Your task to perform on an android device: open app "DuckDuckGo Privacy Browser" (install if not already installed) Image 0: 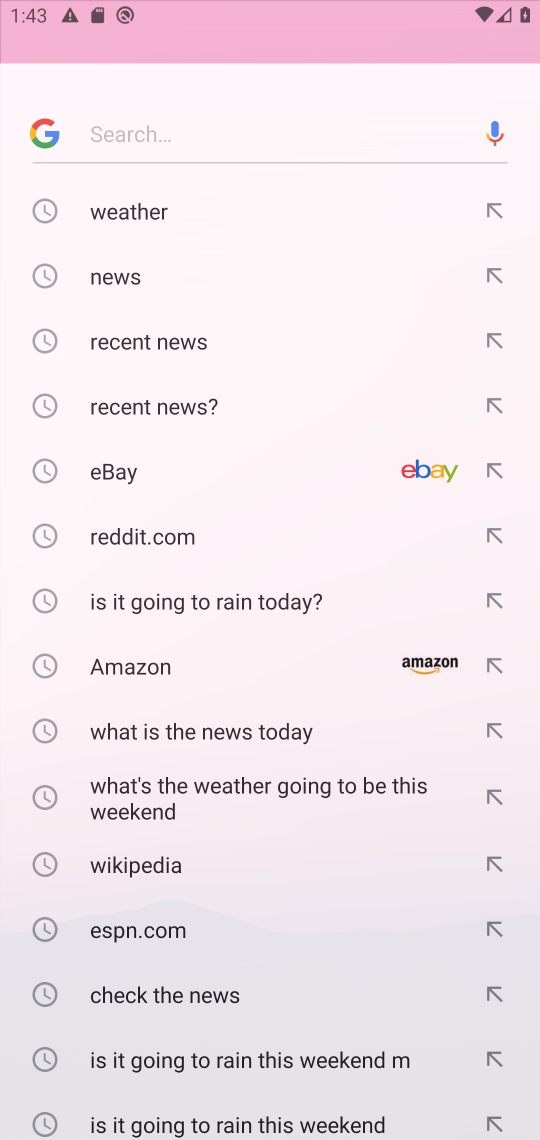
Step 0: press home button
Your task to perform on an android device: open app "DuckDuckGo Privacy Browser" (install if not already installed) Image 1: 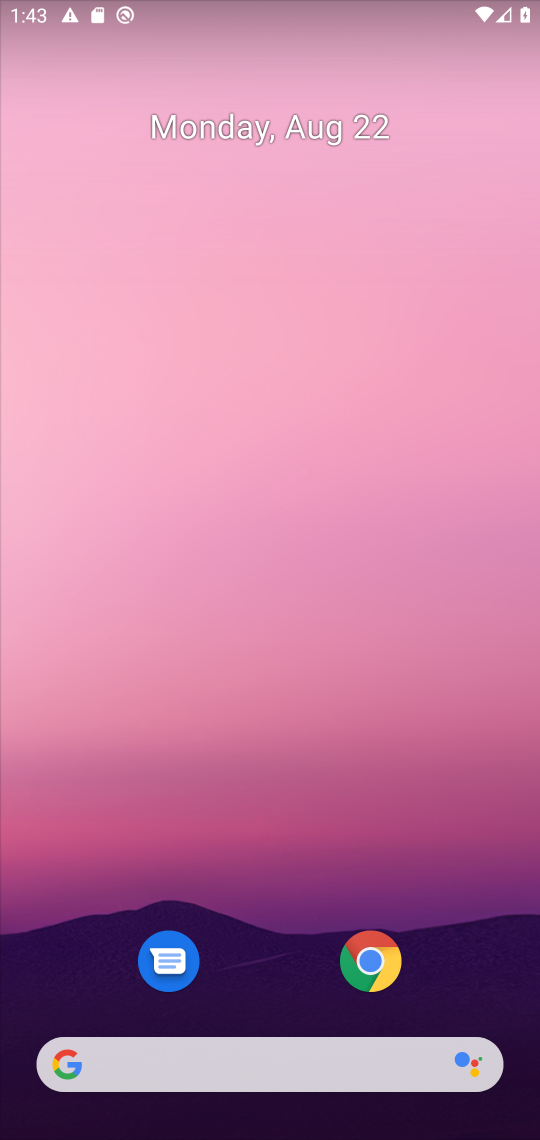
Step 1: drag from (467, 984) to (508, 136)
Your task to perform on an android device: open app "DuckDuckGo Privacy Browser" (install if not already installed) Image 2: 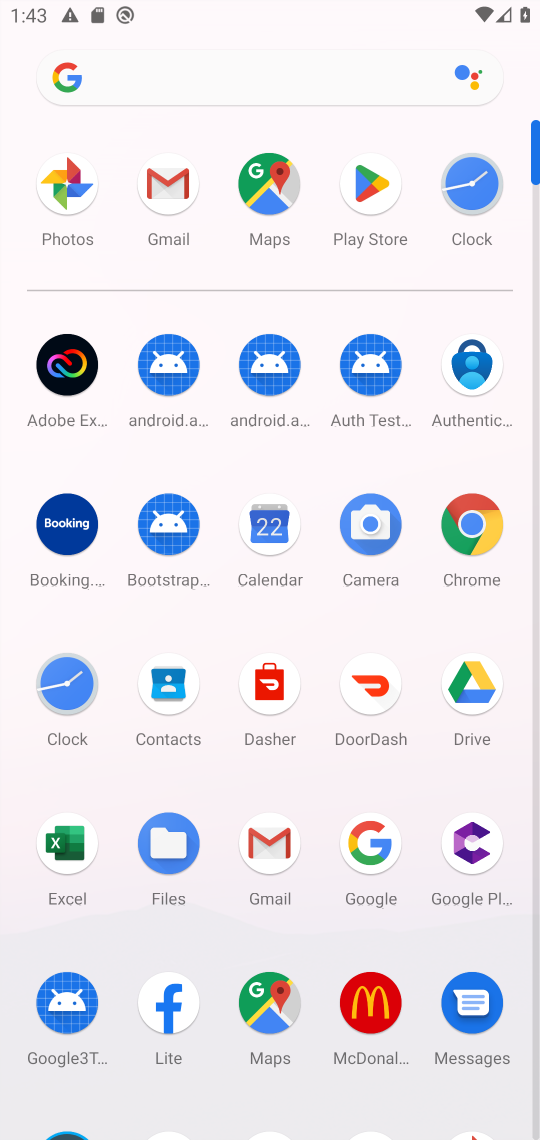
Step 2: click (358, 179)
Your task to perform on an android device: open app "DuckDuckGo Privacy Browser" (install if not already installed) Image 3: 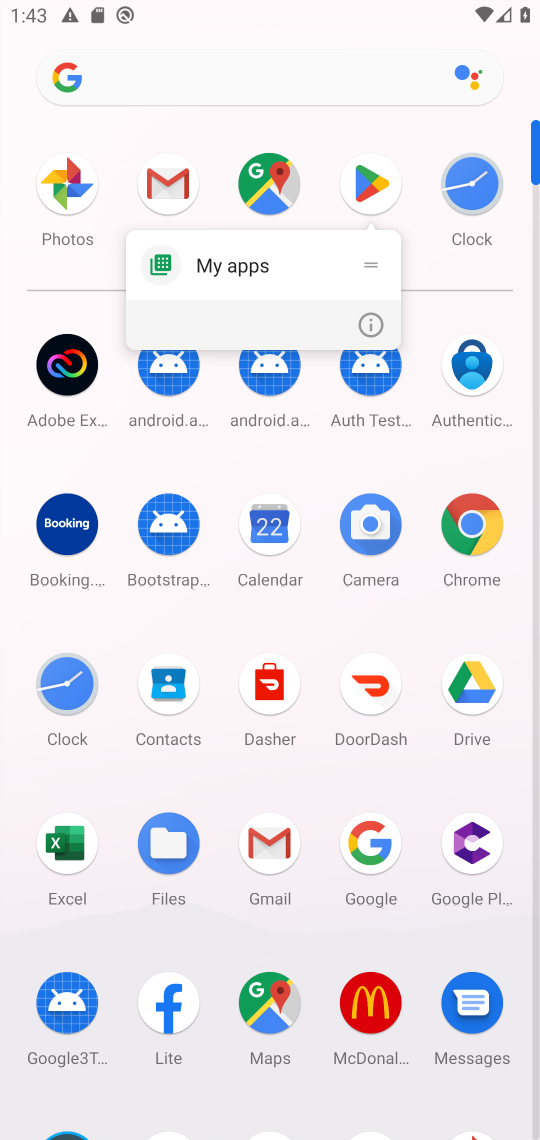
Step 3: click (379, 185)
Your task to perform on an android device: open app "DuckDuckGo Privacy Browser" (install if not already installed) Image 4: 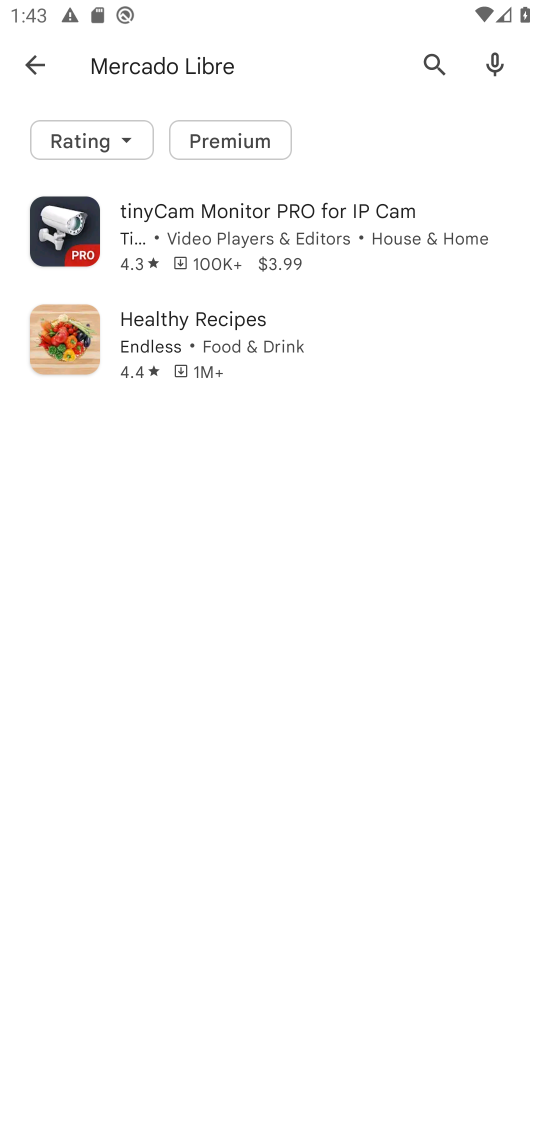
Step 4: press back button
Your task to perform on an android device: open app "DuckDuckGo Privacy Browser" (install if not already installed) Image 5: 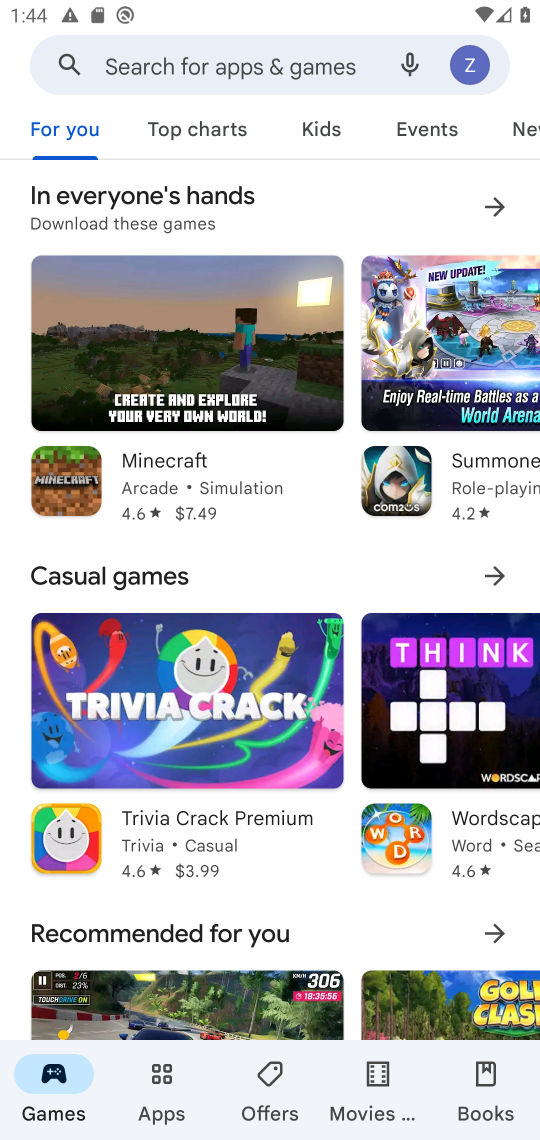
Step 5: click (195, 64)
Your task to perform on an android device: open app "DuckDuckGo Privacy Browser" (install if not already installed) Image 6: 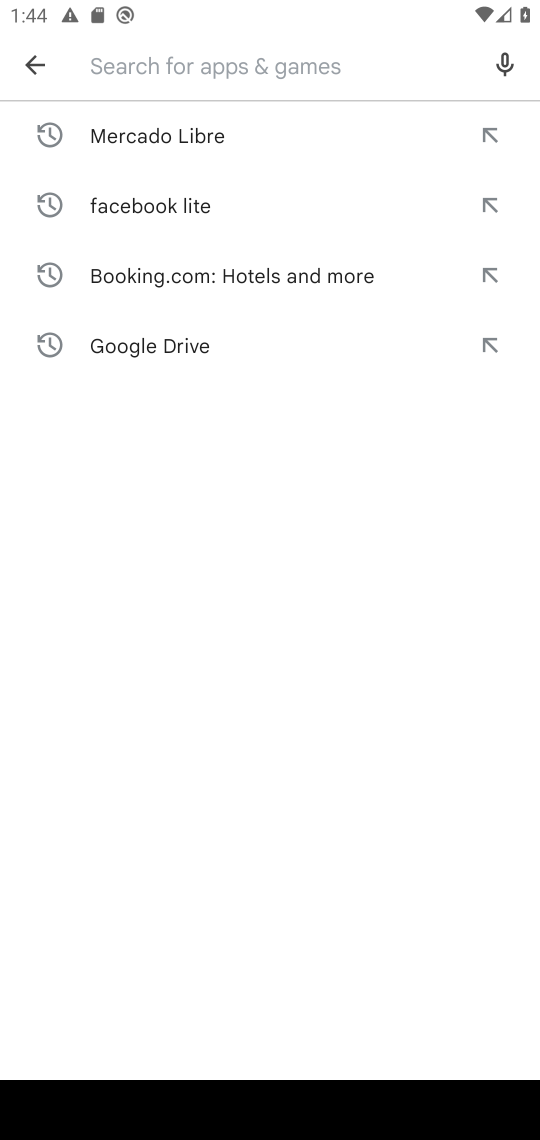
Step 6: type "DuckDuckGo Privacy Browser"
Your task to perform on an android device: open app "DuckDuckGo Privacy Browser" (install if not already installed) Image 7: 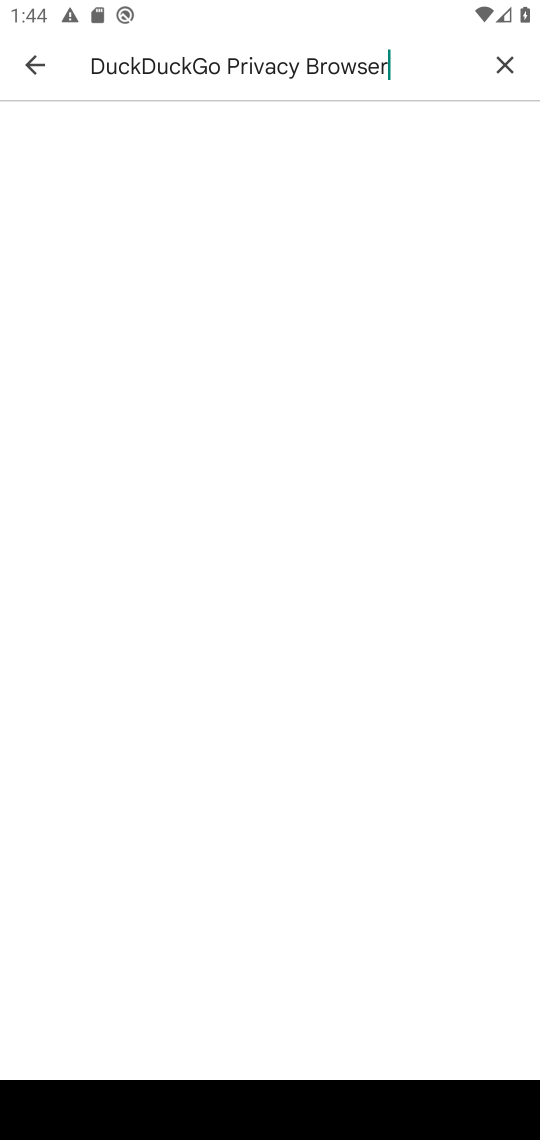
Step 7: press enter
Your task to perform on an android device: open app "DuckDuckGo Privacy Browser" (install if not already installed) Image 8: 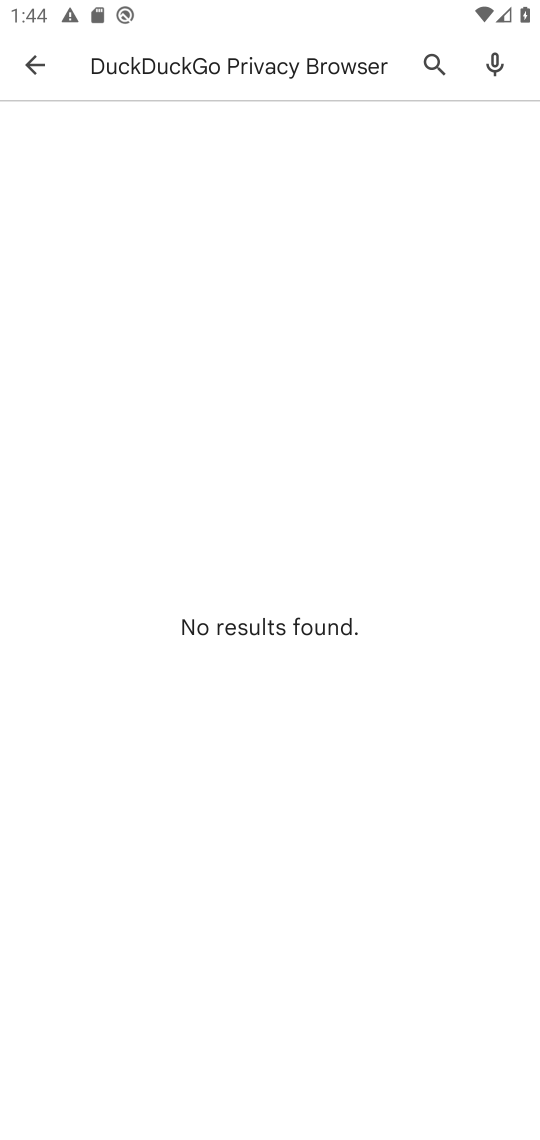
Step 8: task complete